Your task to perform on an android device: toggle improve location accuracy Image 0: 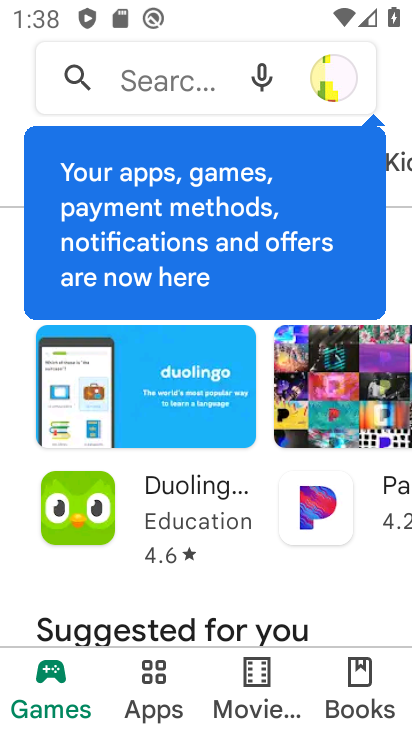
Step 0: press back button
Your task to perform on an android device: toggle improve location accuracy Image 1: 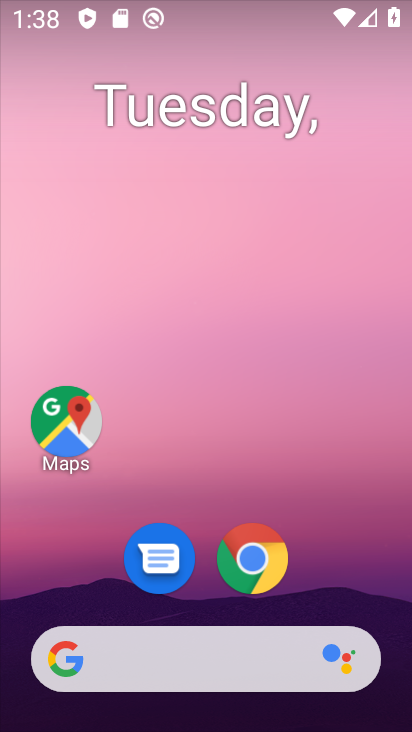
Step 1: drag from (149, 594) to (344, 98)
Your task to perform on an android device: toggle improve location accuracy Image 2: 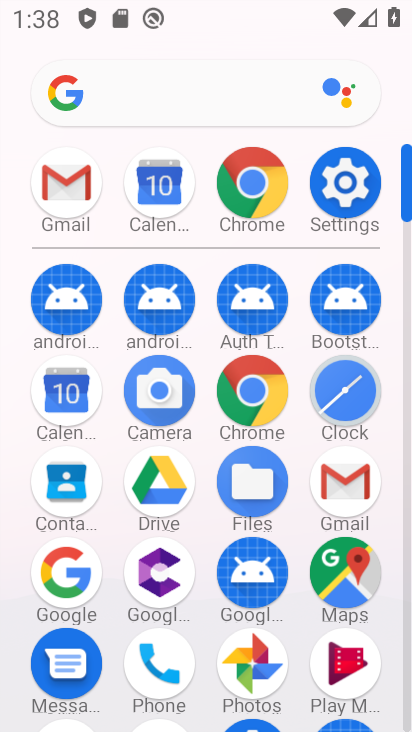
Step 2: click (339, 158)
Your task to perform on an android device: toggle improve location accuracy Image 3: 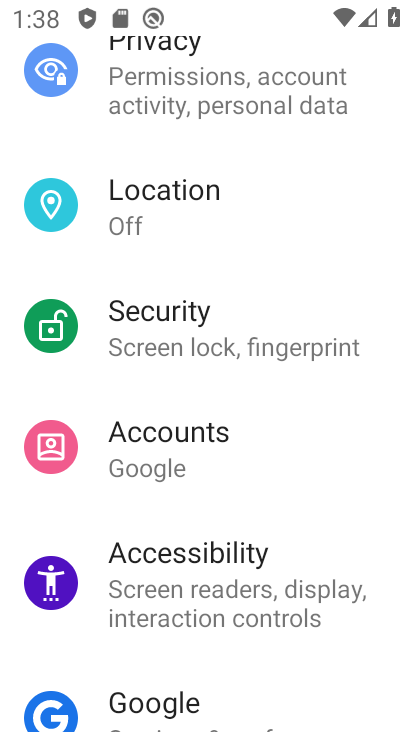
Step 3: drag from (182, 633) to (304, 73)
Your task to perform on an android device: toggle improve location accuracy Image 4: 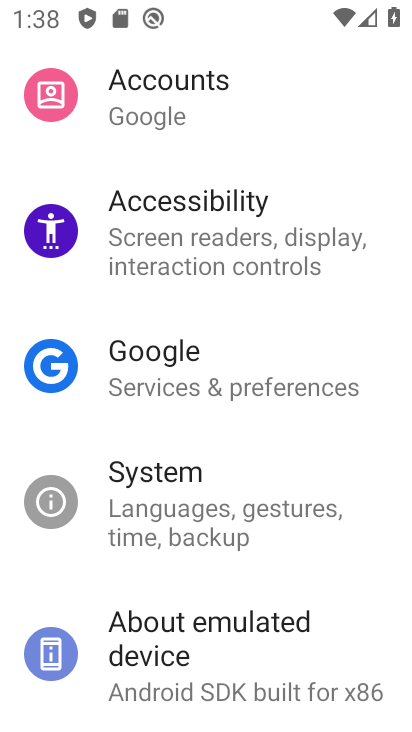
Step 4: drag from (221, 197) to (147, 731)
Your task to perform on an android device: toggle improve location accuracy Image 5: 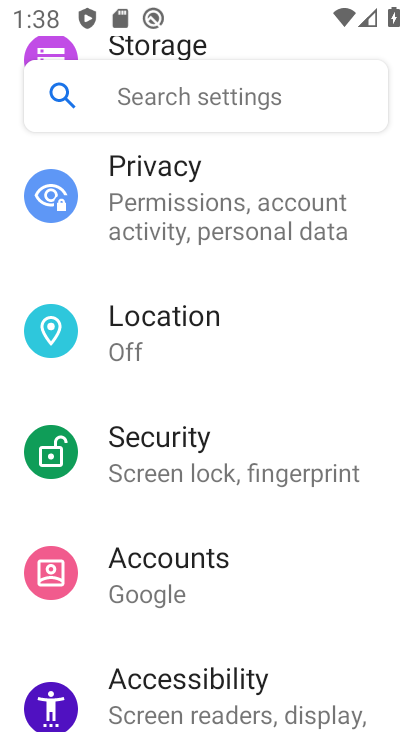
Step 5: click (153, 343)
Your task to perform on an android device: toggle improve location accuracy Image 6: 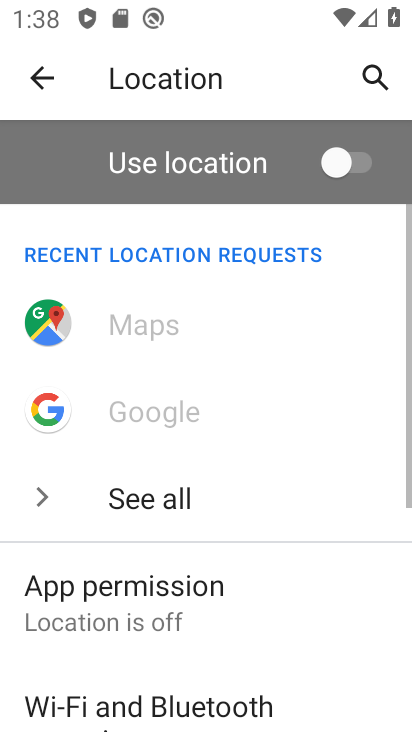
Step 6: drag from (116, 656) to (318, 91)
Your task to perform on an android device: toggle improve location accuracy Image 7: 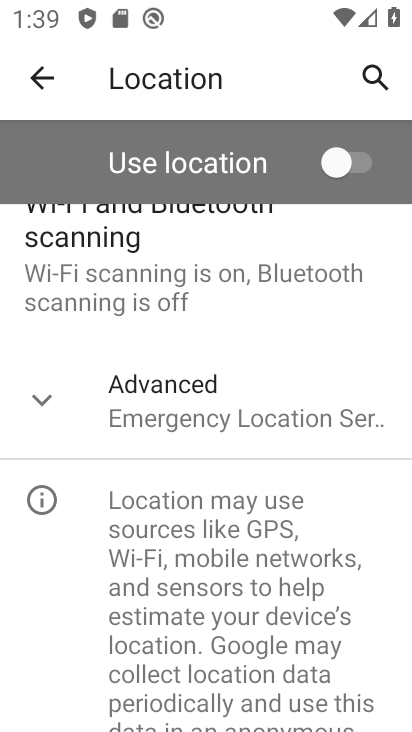
Step 7: click (167, 406)
Your task to perform on an android device: toggle improve location accuracy Image 8: 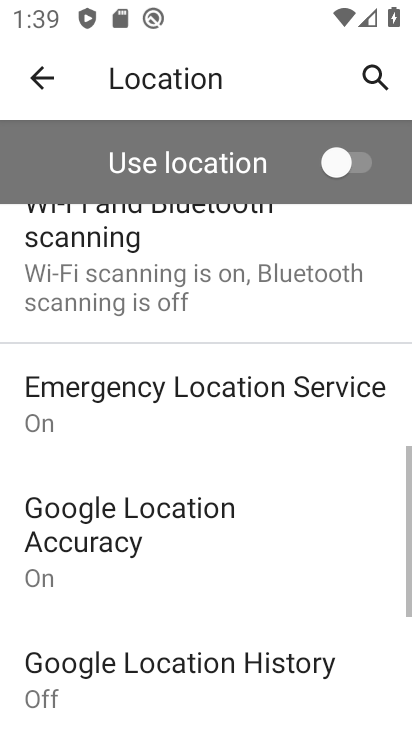
Step 8: drag from (137, 667) to (243, 390)
Your task to perform on an android device: toggle improve location accuracy Image 9: 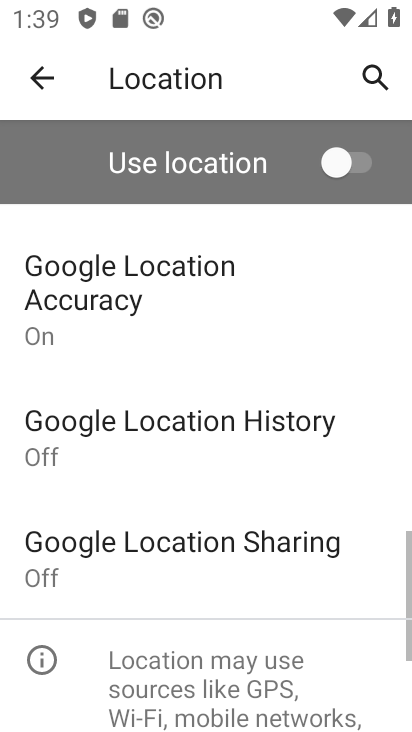
Step 9: click (126, 312)
Your task to perform on an android device: toggle improve location accuracy Image 10: 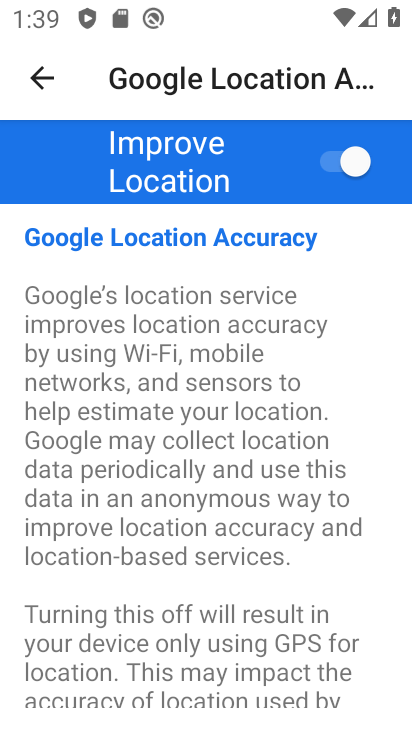
Step 10: click (353, 158)
Your task to perform on an android device: toggle improve location accuracy Image 11: 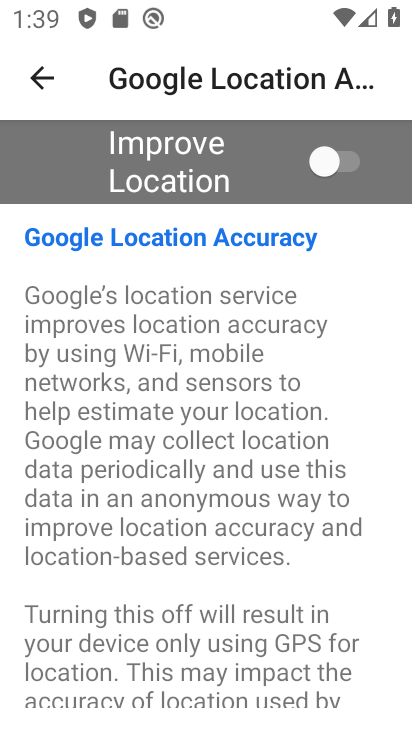
Step 11: task complete